Your task to perform on an android device: Open maps Image 0: 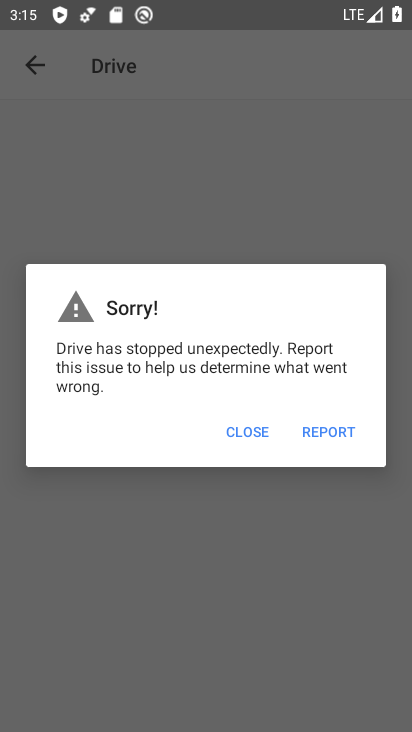
Step 0: drag from (61, 450) to (185, 122)
Your task to perform on an android device: Open maps Image 1: 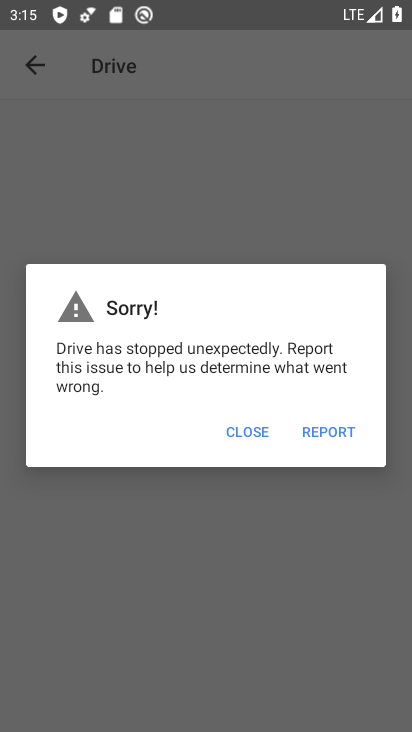
Step 1: press home button
Your task to perform on an android device: Open maps Image 2: 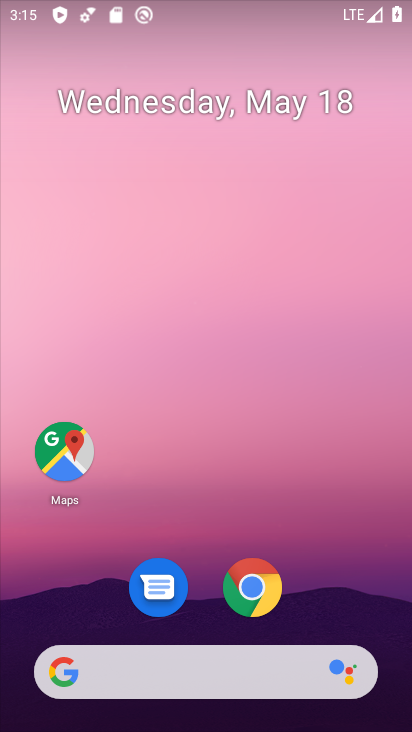
Step 2: drag from (193, 647) to (263, 144)
Your task to perform on an android device: Open maps Image 3: 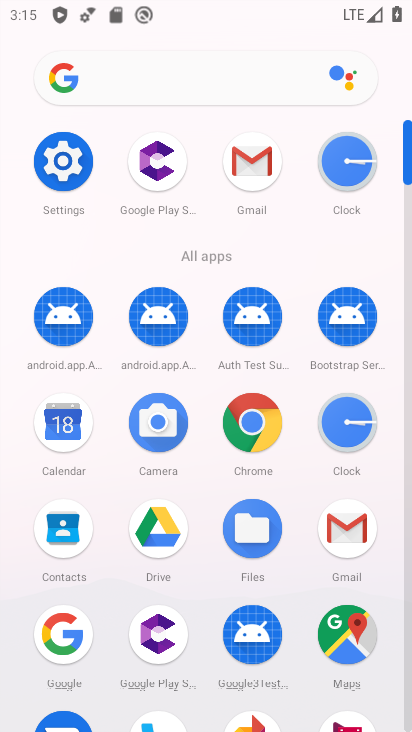
Step 3: click (347, 632)
Your task to perform on an android device: Open maps Image 4: 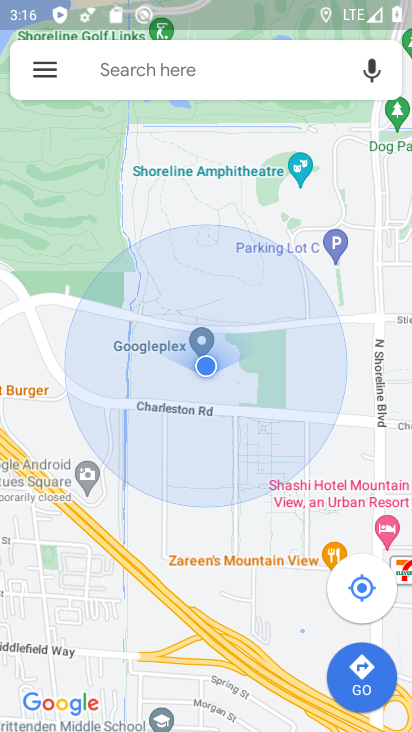
Step 4: task complete